Your task to perform on an android device: What is the recent news? Image 0: 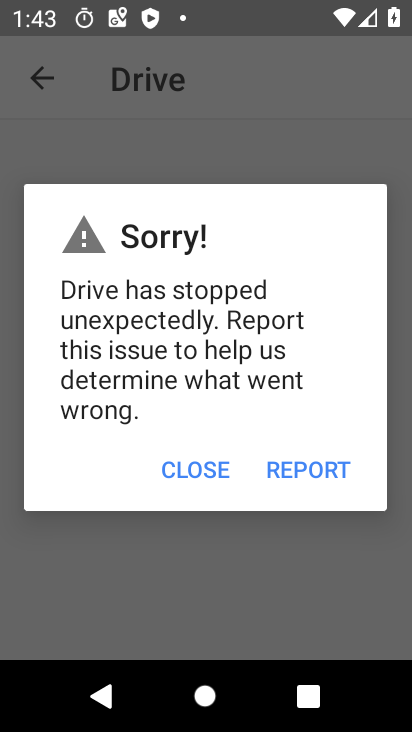
Step 0: click (208, 462)
Your task to perform on an android device: What is the recent news? Image 1: 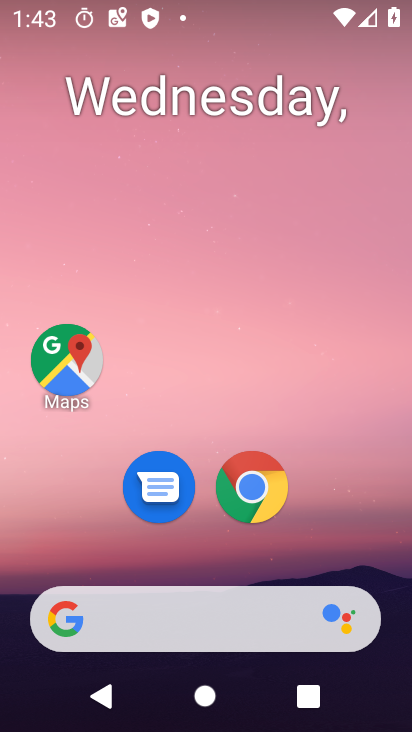
Step 1: click (152, 622)
Your task to perform on an android device: What is the recent news? Image 2: 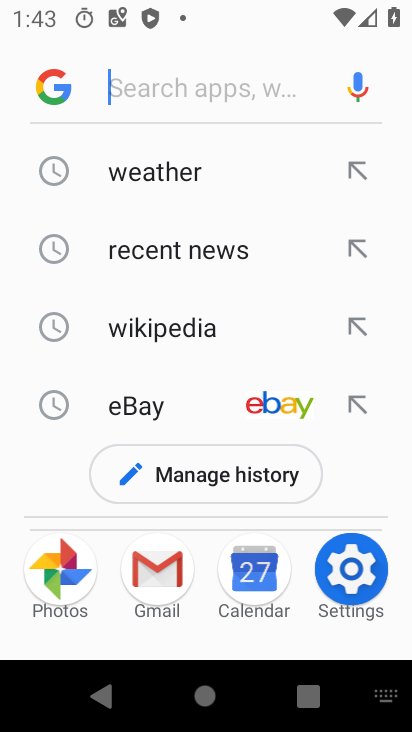
Step 2: click (156, 84)
Your task to perform on an android device: What is the recent news? Image 3: 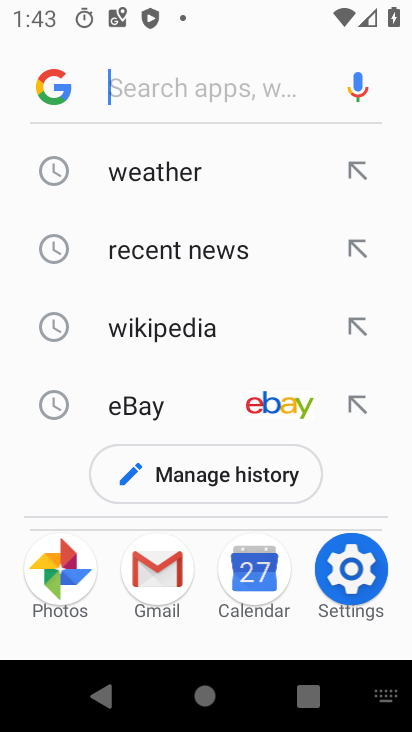
Step 3: click (156, 239)
Your task to perform on an android device: What is the recent news? Image 4: 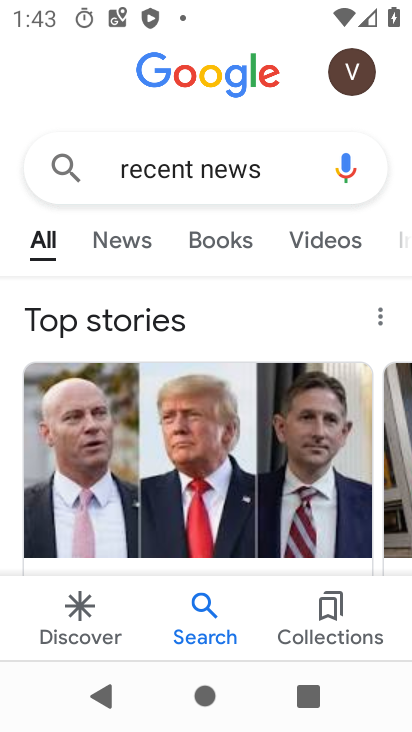
Step 4: task complete